Your task to perform on an android device: allow cookies in the chrome app Image 0: 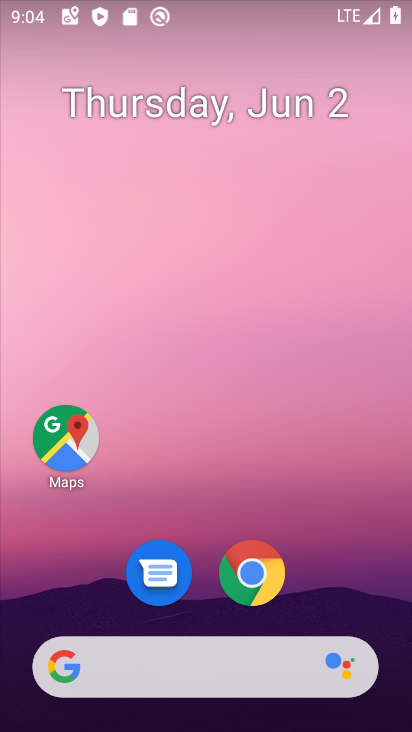
Step 0: press home button
Your task to perform on an android device: allow cookies in the chrome app Image 1: 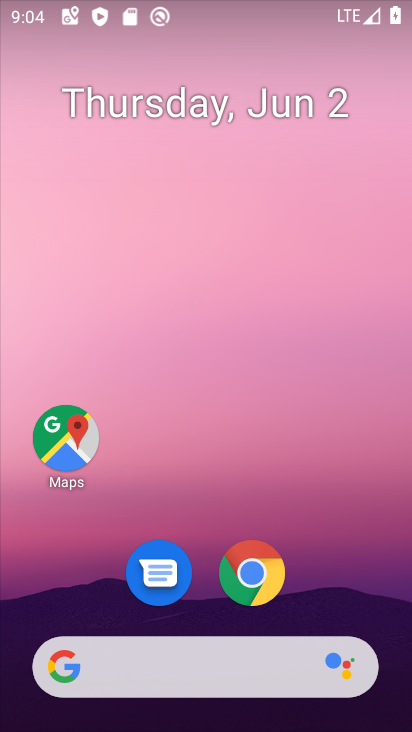
Step 1: click (266, 572)
Your task to perform on an android device: allow cookies in the chrome app Image 2: 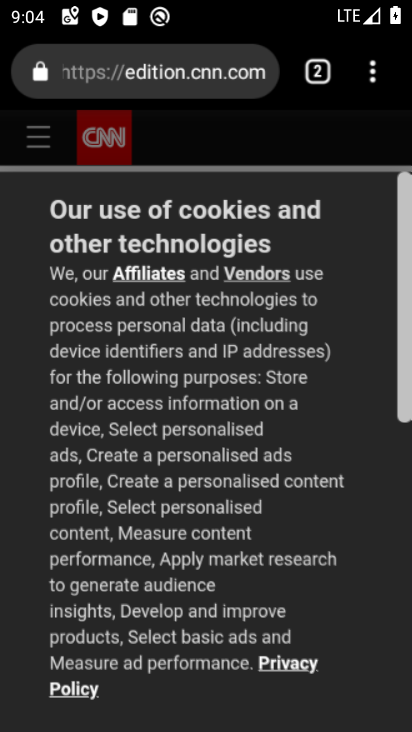
Step 2: drag from (386, 73) to (214, 574)
Your task to perform on an android device: allow cookies in the chrome app Image 3: 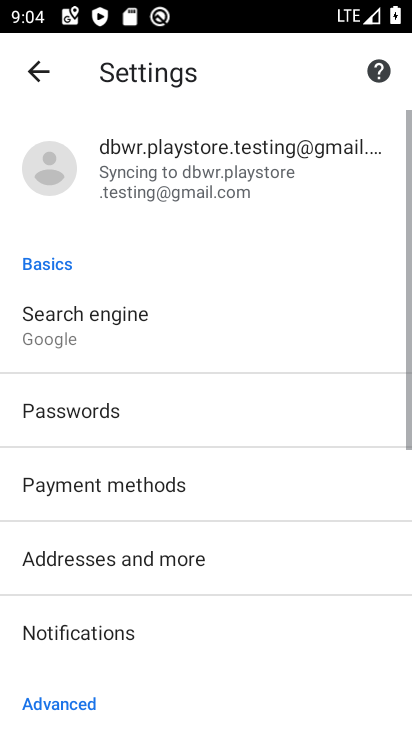
Step 3: drag from (184, 623) to (186, 188)
Your task to perform on an android device: allow cookies in the chrome app Image 4: 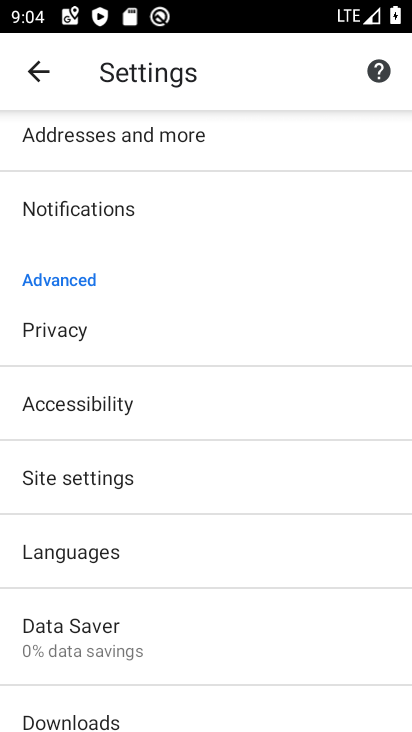
Step 4: click (179, 482)
Your task to perform on an android device: allow cookies in the chrome app Image 5: 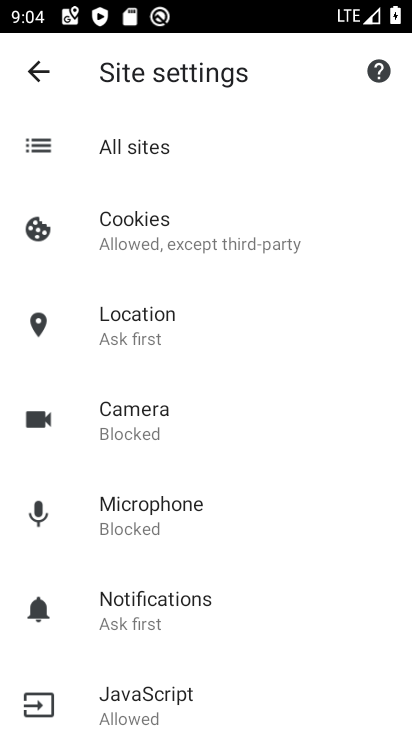
Step 5: click (184, 217)
Your task to perform on an android device: allow cookies in the chrome app Image 6: 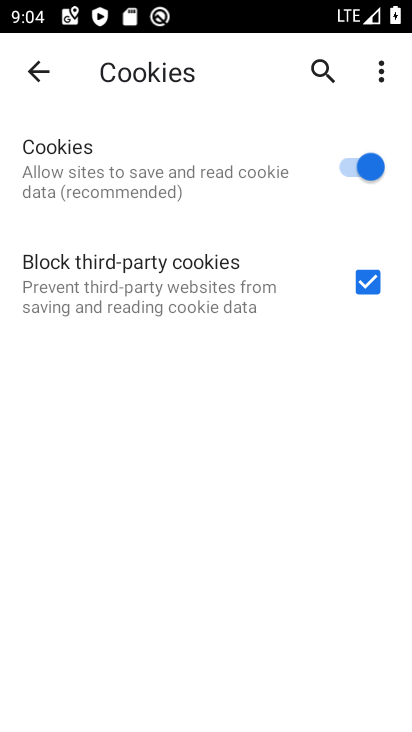
Step 6: task complete